Your task to perform on an android device: check the backup settings in the google photos Image 0: 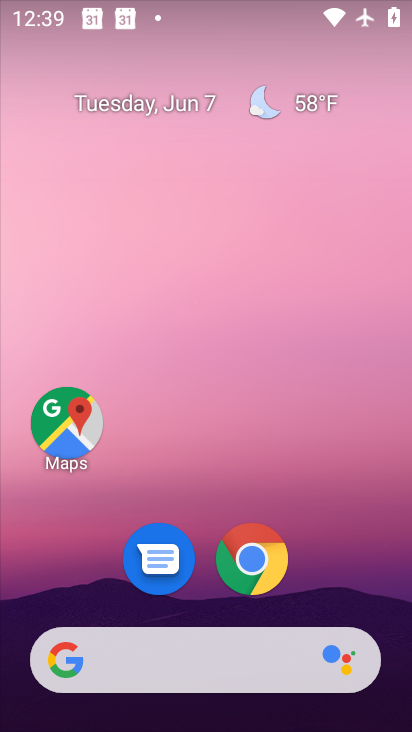
Step 0: drag from (392, 622) to (339, 57)
Your task to perform on an android device: check the backup settings in the google photos Image 1: 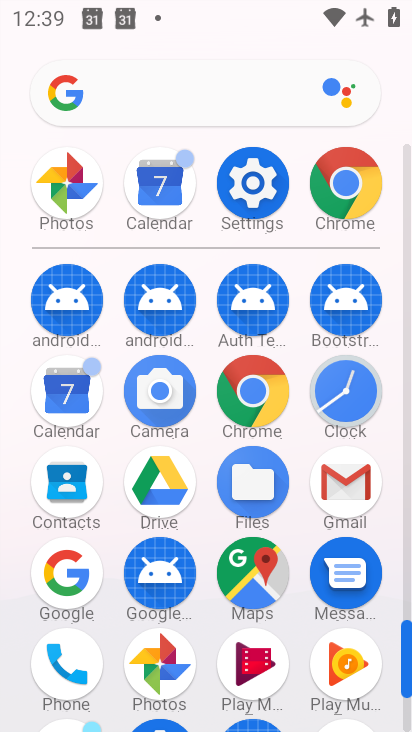
Step 1: click (158, 664)
Your task to perform on an android device: check the backup settings in the google photos Image 2: 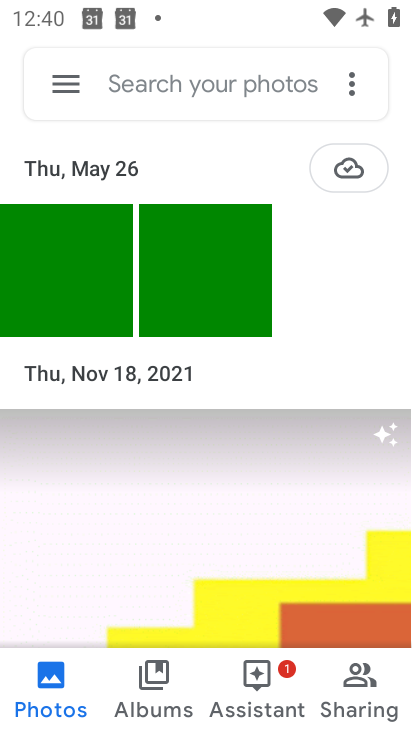
Step 2: click (60, 82)
Your task to perform on an android device: check the backup settings in the google photos Image 3: 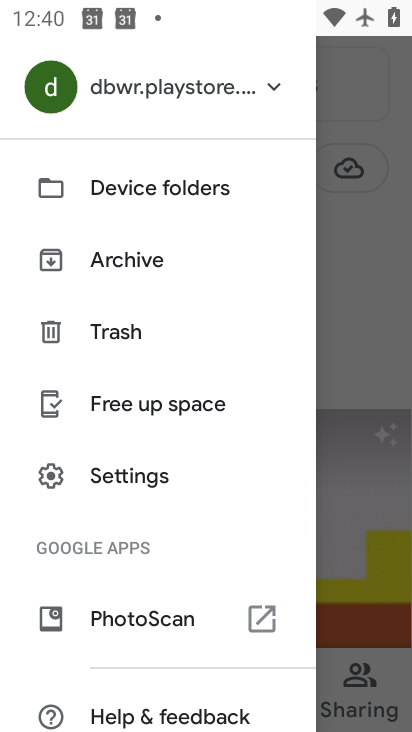
Step 3: click (152, 489)
Your task to perform on an android device: check the backup settings in the google photos Image 4: 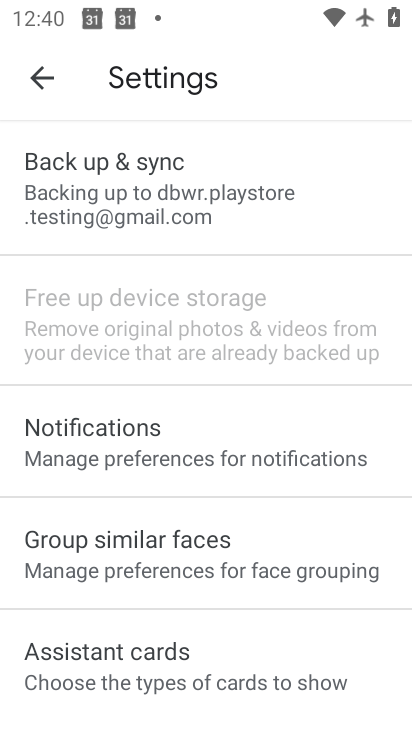
Step 4: click (126, 195)
Your task to perform on an android device: check the backup settings in the google photos Image 5: 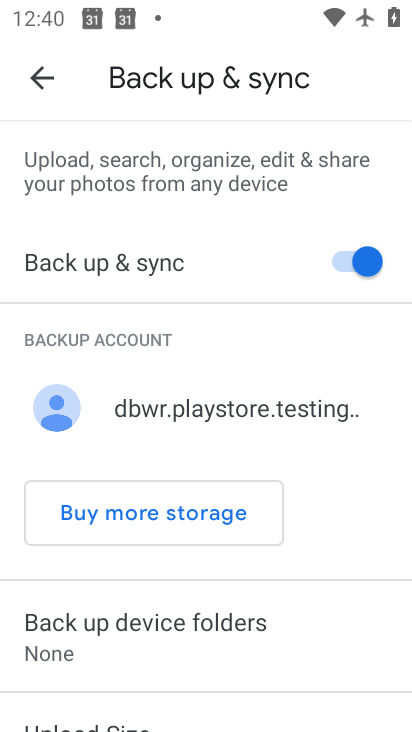
Step 5: task complete